Your task to perform on an android device: remove spam from my inbox in the gmail app Image 0: 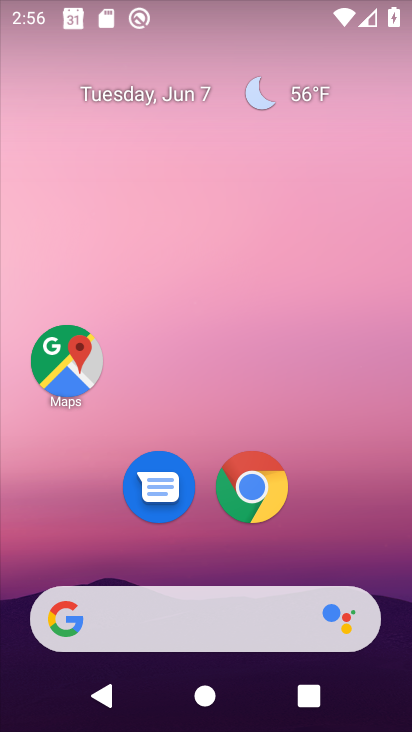
Step 0: drag from (364, 560) to (245, 93)
Your task to perform on an android device: remove spam from my inbox in the gmail app Image 1: 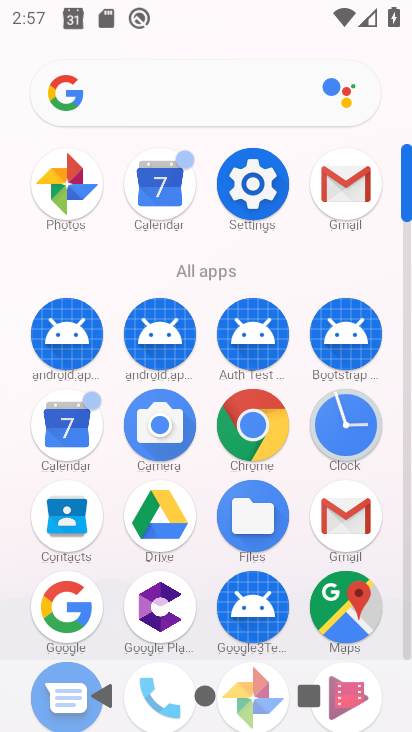
Step 1: click (352, 204)
Your task to perform on an android device: remove spam from my inbox in the gmail app Image 2: 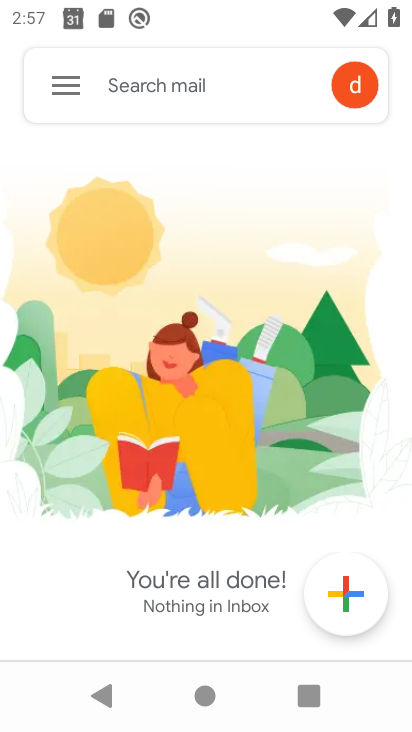
Step 2: click (64, 97)
Your task to perform on an android device: remove spam from my inbox in the gmail app Image 3: 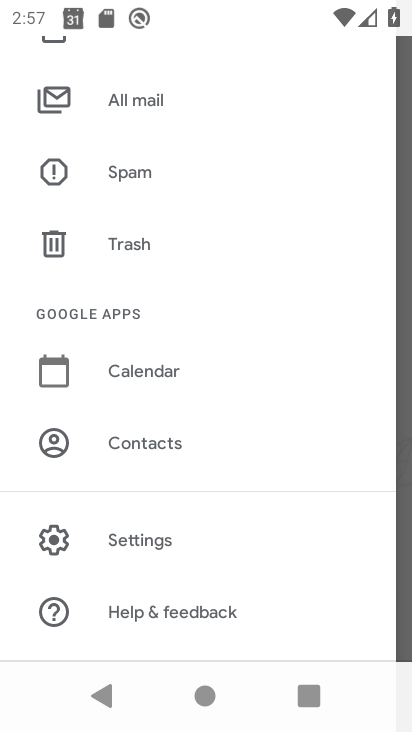
Step 3: click (146, 182)
Your task to perform on an android device: remove spam from my inbox in the gmail app Image 4: 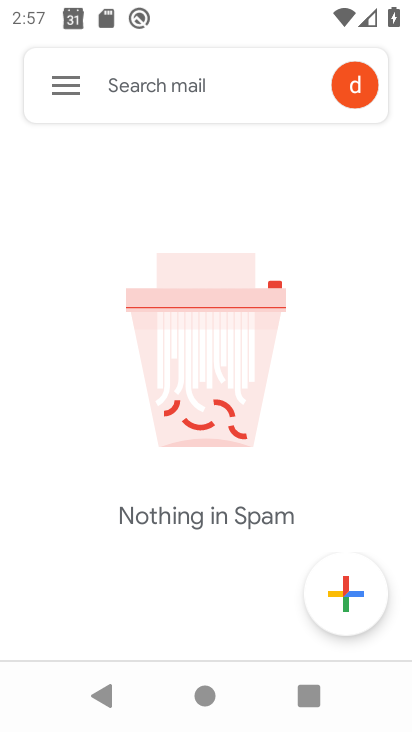
Step 4: task complete